Your task to perform on an android device: Open display settings Image 0: 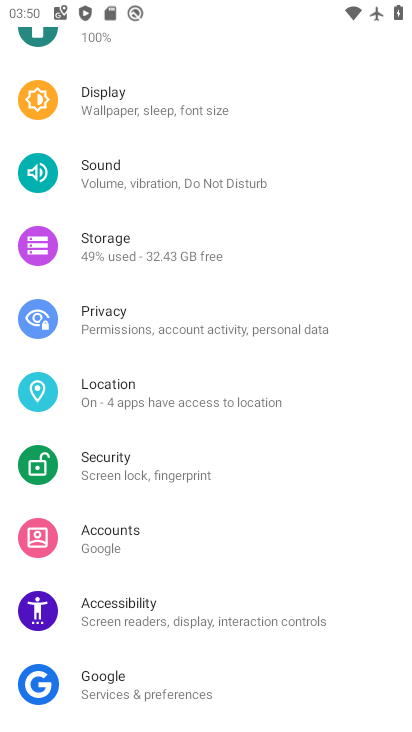
Step 0: press home button
Your task to perform on an android device: Open display settings Image 1: 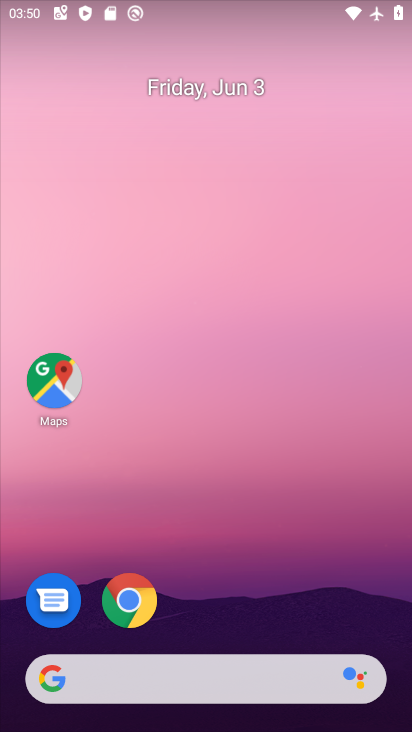
Step 1: drag from (242, 635) to (365, 0)
Your task to perform on an android device: Open display settings Image 2: 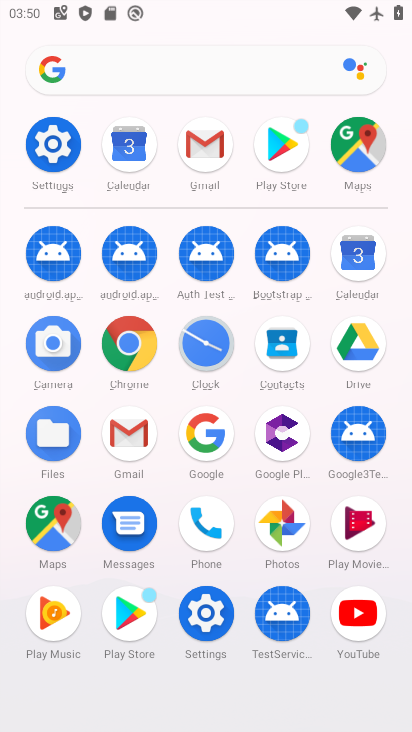
Step 2: click (58, 171)
Your task to perform on an android device: Open display settings Image 3: 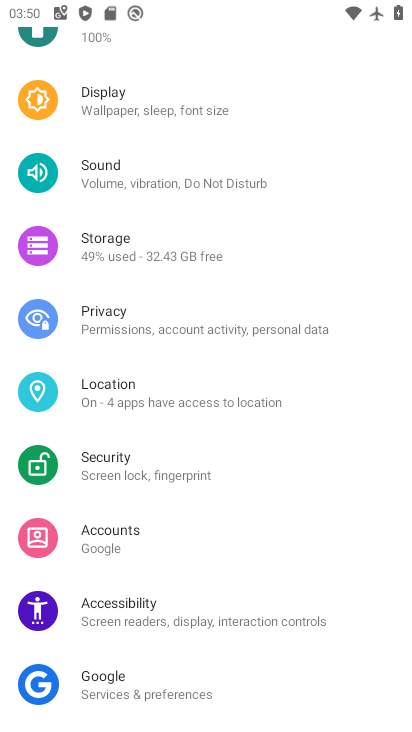
Step 3: click (172, 109)
Your task to perform on an android device: Open display settings Image 4: 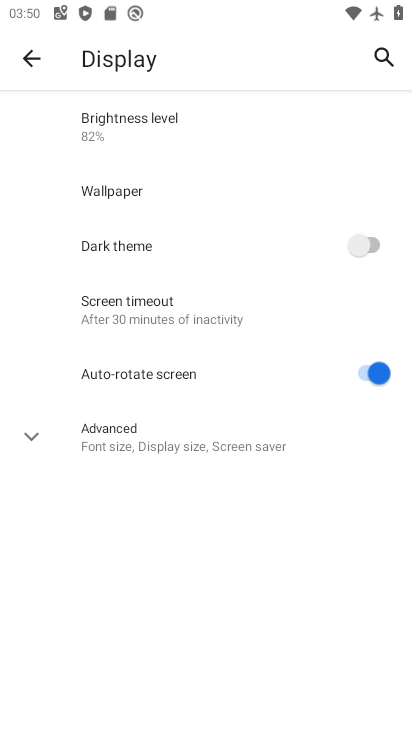
Step 4: task complete